Your task to perform on an android device: Check the news Image 0: 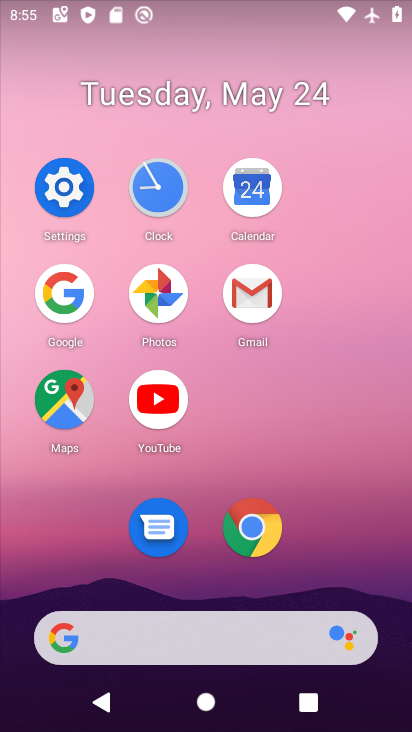
Step 0: click (64, 306)
Your task to perform on an android device: Check the news Image 1: 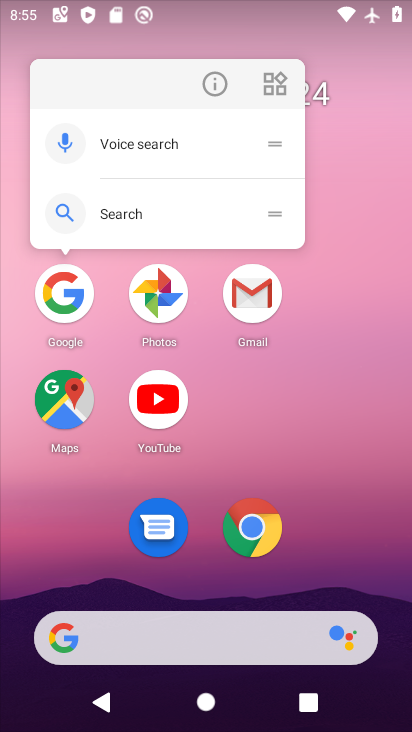
Step 1: click (64, 306)
Your task to perform on an android device: Check the news Image 2: 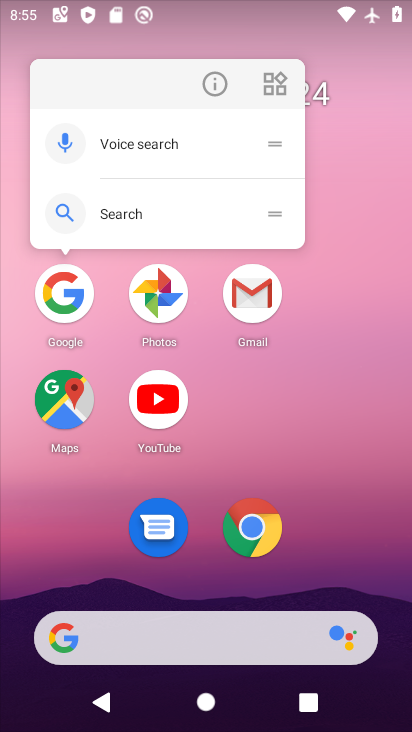
Step 2: click (64, 306)
Your task to perform on an android device: Check the news Image 3: 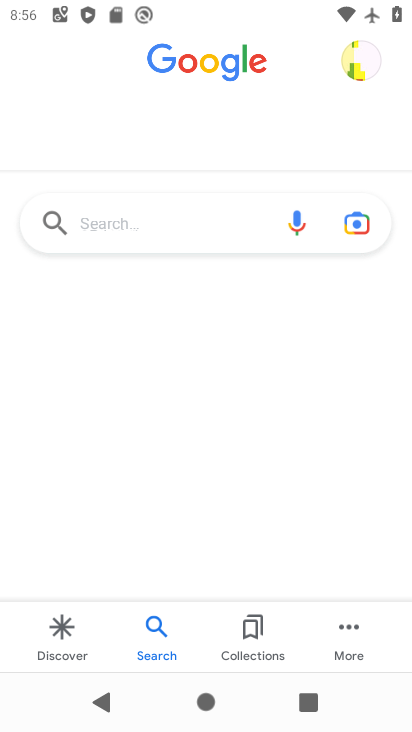
Step 3: drag from (134, 234) to (37, 233)
Your task to perform on an android device: Check the news Image 4: 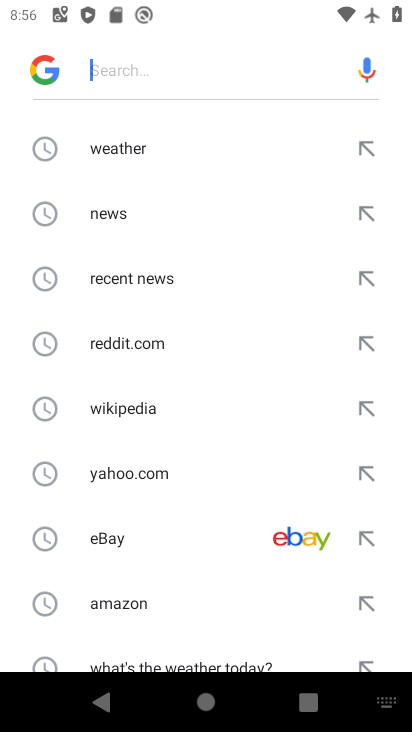
Step 4: click (122, 209)
Your task to perform on an android device: Check the news Image 5: 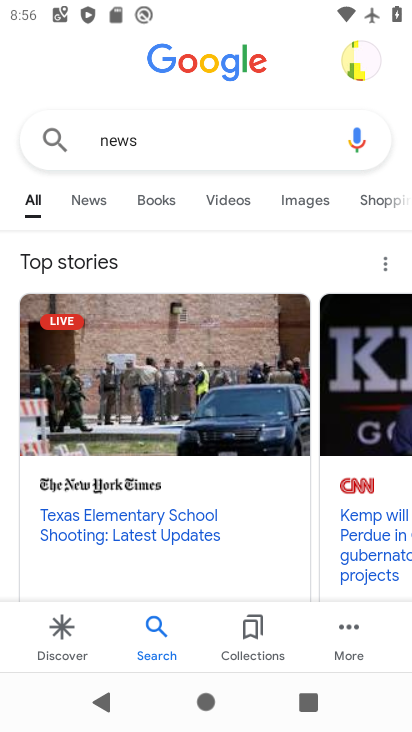
Step 5: task complete